Your task to perform on an android device: delete the emails in spam in the gmail app Image 0: 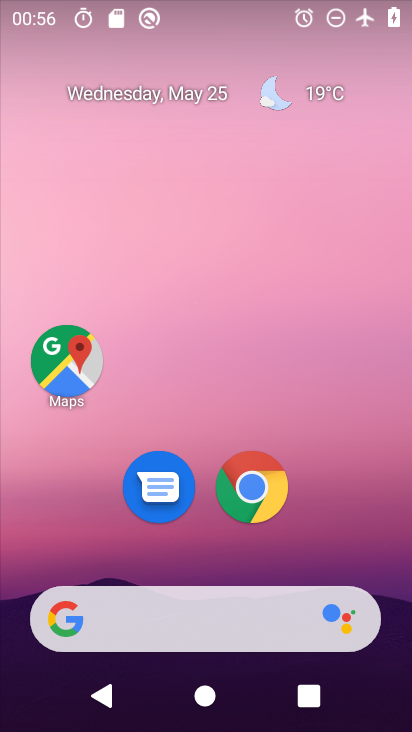
Step 0: drag from (373, 526) to (379, 22)
Your task to perform on an android device: delete the emails in spam in the gmail app Image 1: 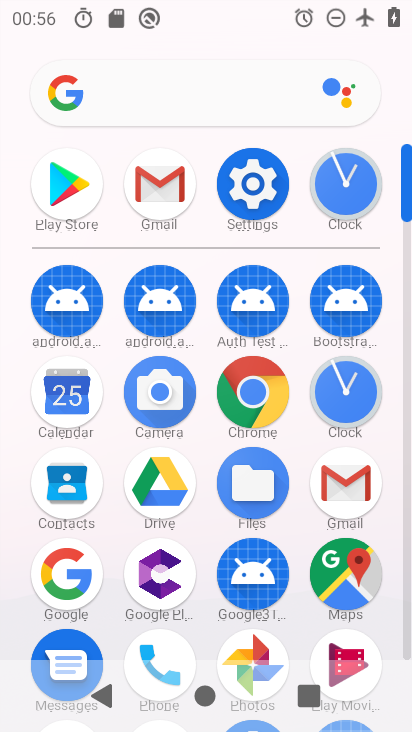
Step 1: click (161, 189)
Your task to perform on an android device: delete the emails in spam in the gmail app Image 2: 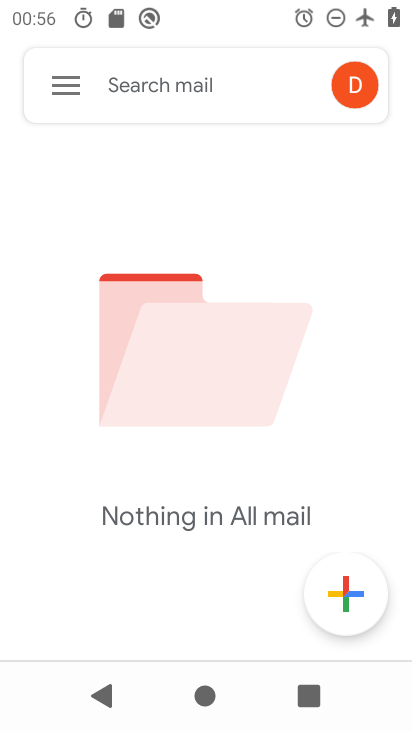
Step 2: click (70, 87)
Your task to perform on an android device: delete the emails in spam in the gmail app Image 3: 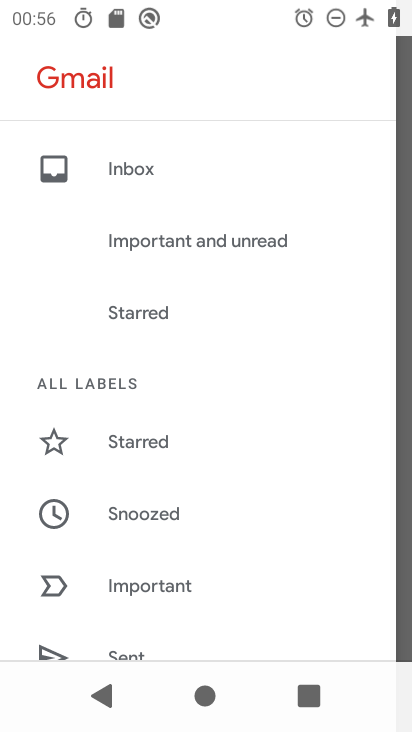
Step 3: drag from (195, 500) to (206, 190)
Your task to perform on an android device: delete the emails in spam in the gmail app Image 4: 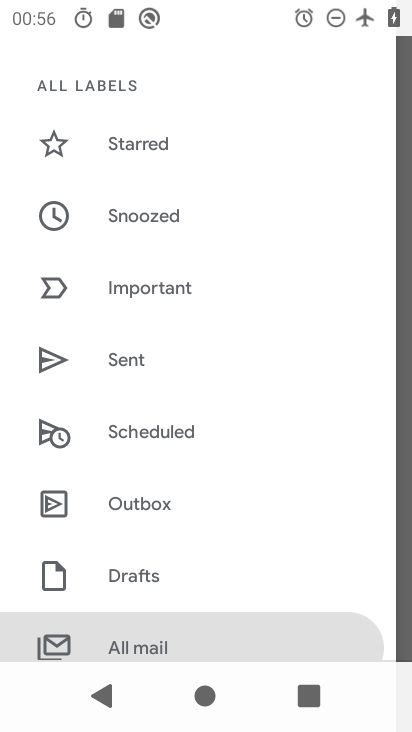
Step 4: drag from (164, 508) to (174, 148)
Your task to perform on an android device: delete the emails in spam in the gmail app Image 5: 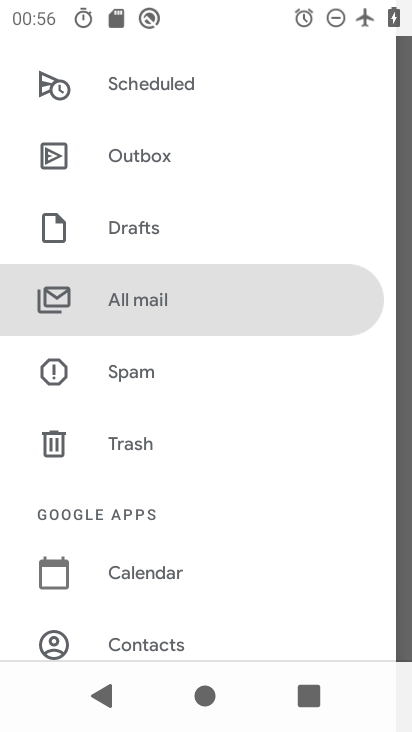
Step 5: click (102, 366)
Your task to perform on an android device: delete the emails in spam in the gmail app Image 6: 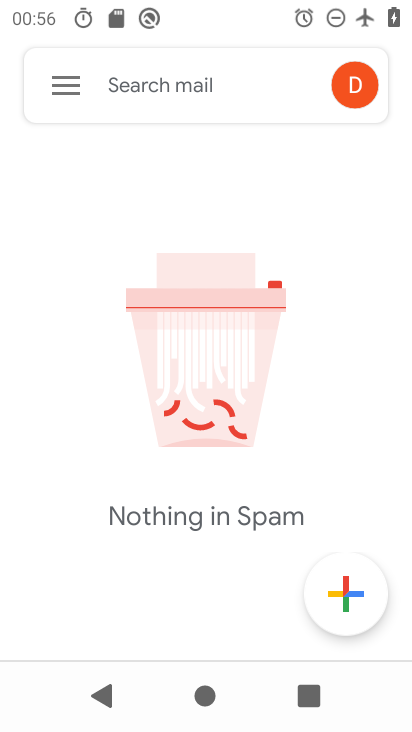
Step 6: task complete